Your task to perform on an android device: toggle improve location accuracy Image 0: 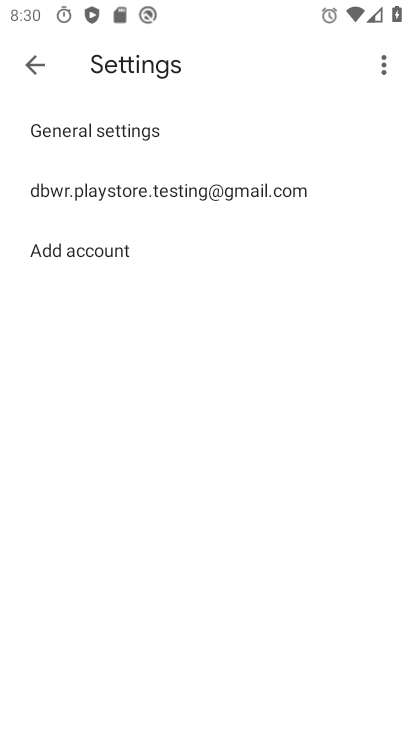
Step 0: press home button
Your task to perform on an android device: toggle improve location accuracy Image 1: 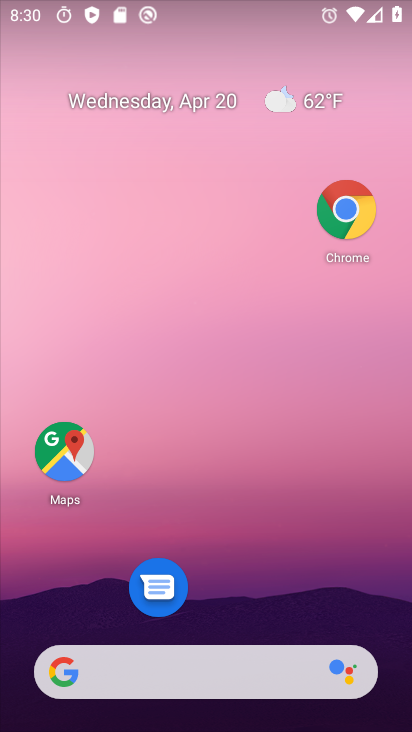
Step 1: drag from (277, 615) to (205, 0)
Your task to perform on an android device: toggle improve location accuracy Image 2: 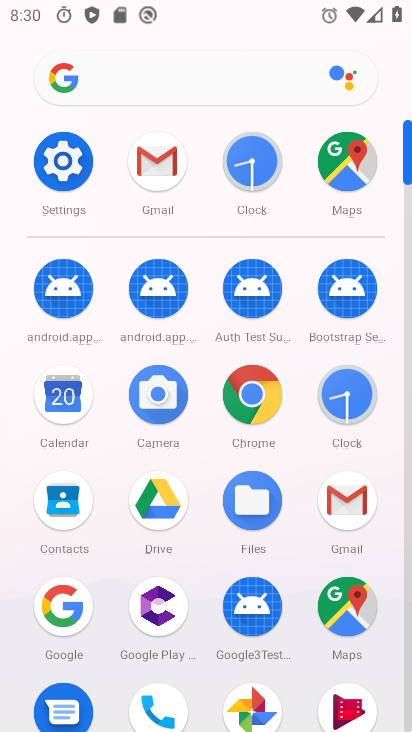
Step 2: click (37, 150)
Your task to perform on an android device: toggle improve location accuracy Image 3: 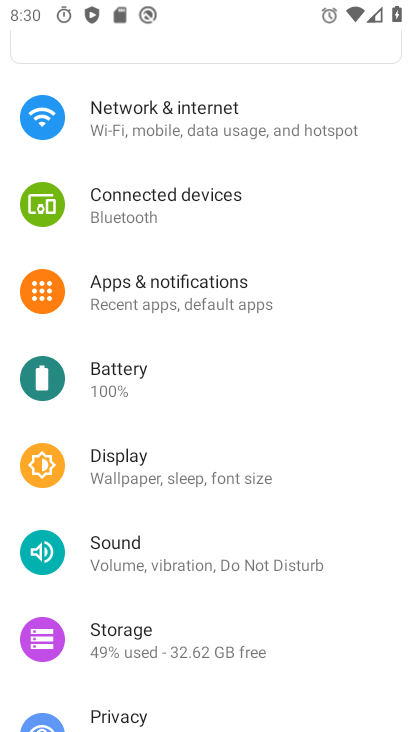
Step 3: drag from (120, 604) to (129, 100)
Your task to perform on an android device: toggle improve location accuracy Image 4: 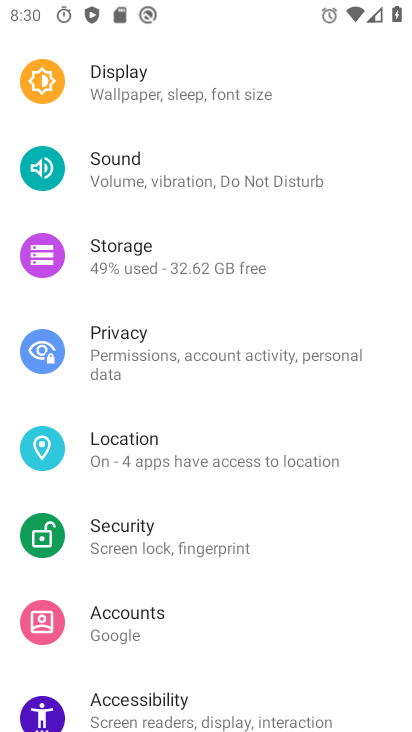
Step 4: click (258, 444)
Your task to perform on an android device: toggle improve location accuracy Image 5: 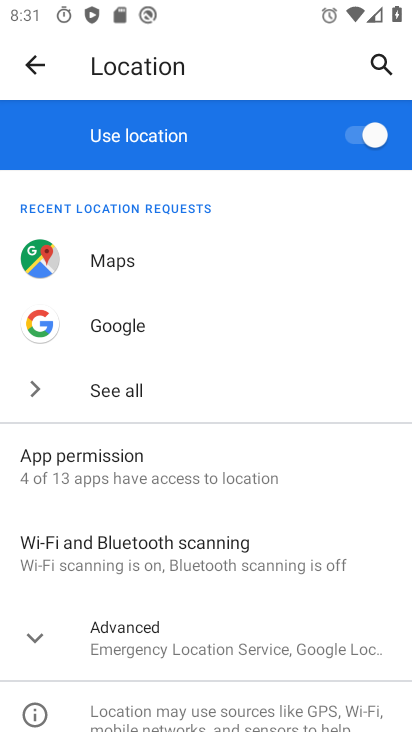
Step 5: click (183, 656)
Your task to perform on an android device: toggle improve location accuracy Image 6: 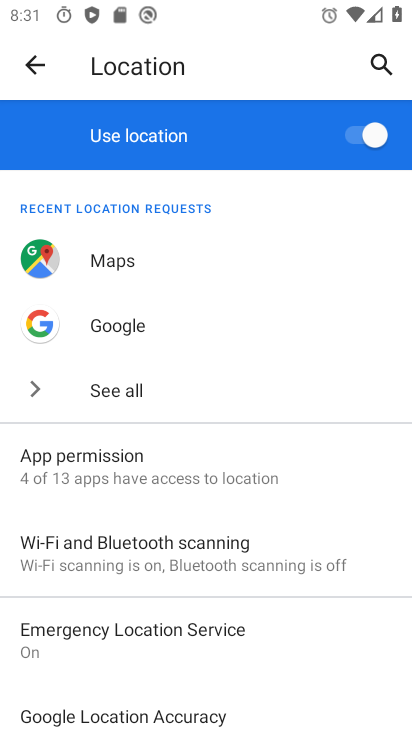
Step 6: drag from (62, 663) to (139, 102)
Your task to perform on an android device: toggle improve location accuracy Image 7: 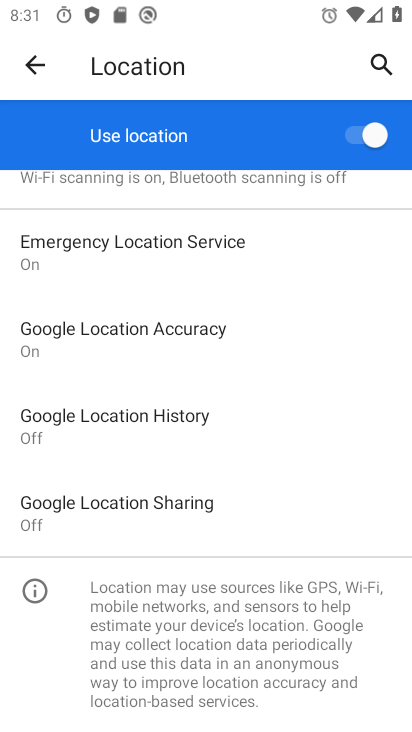
Step 7: click (164, 350)
Your task to perform on an android device: toggle improve location accuracy Image 8: 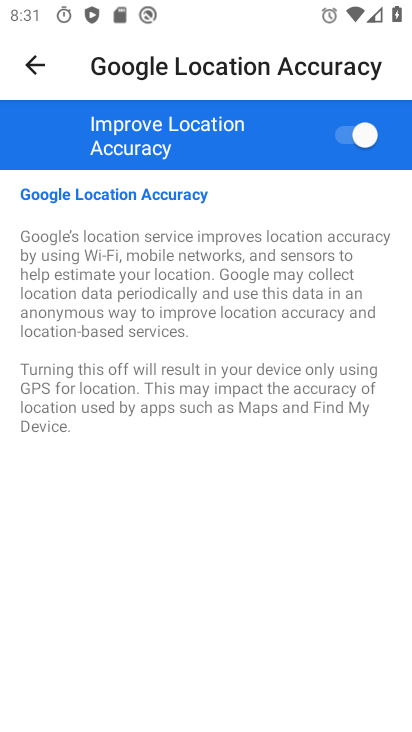
Step 8: click (344, 138)
Your task to perform on an android device: toggle improve location accuracy Image 9: 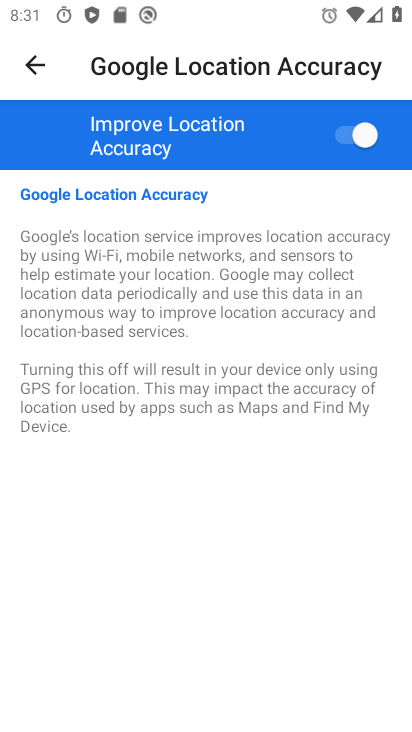
Step 9: click (344, 138)
Your task to perform on an android device: toggle improve location accuracy Image 10: 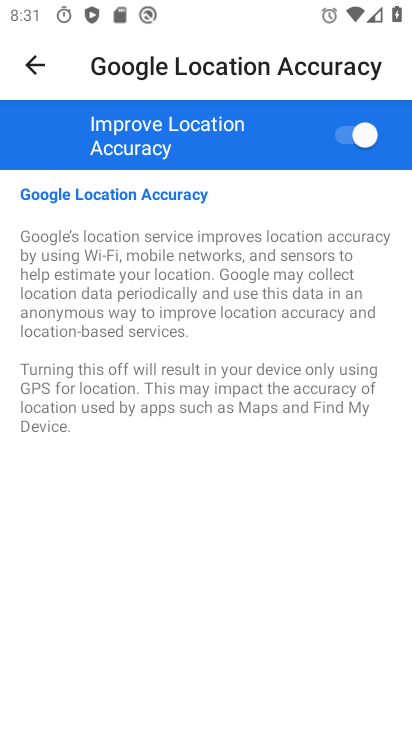
Step 10: task complete